Your task to perform on an android device: Go to wifi settings Image 0: 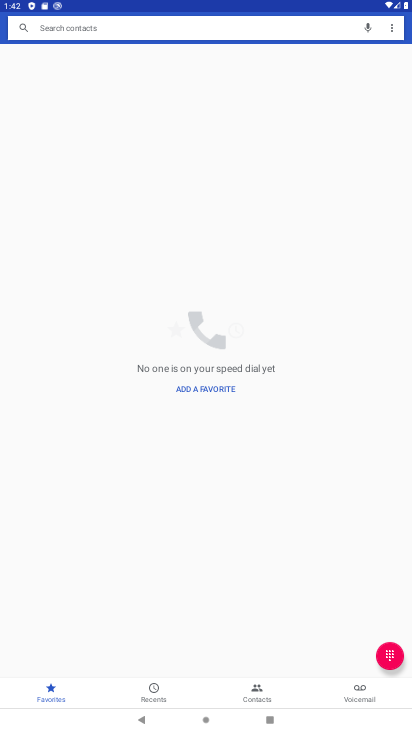
Step 0: press home button
Your task to perform on an android device: Go to wifi settings Image 1: 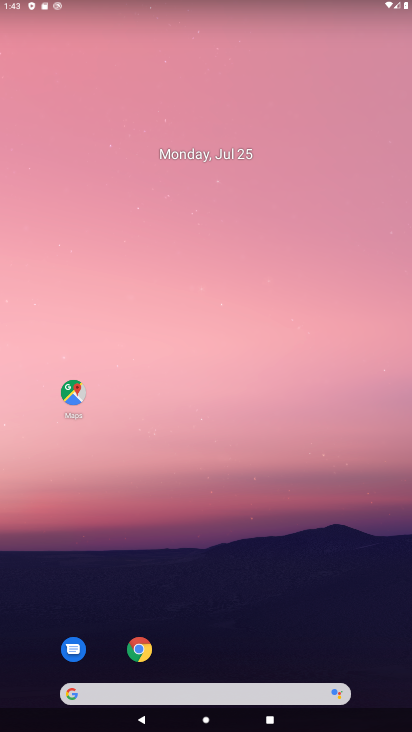
Step 1: drag from (227, 688) to (356, 0)
Your task to perform on an android device: Go to wifi settings Image 2: 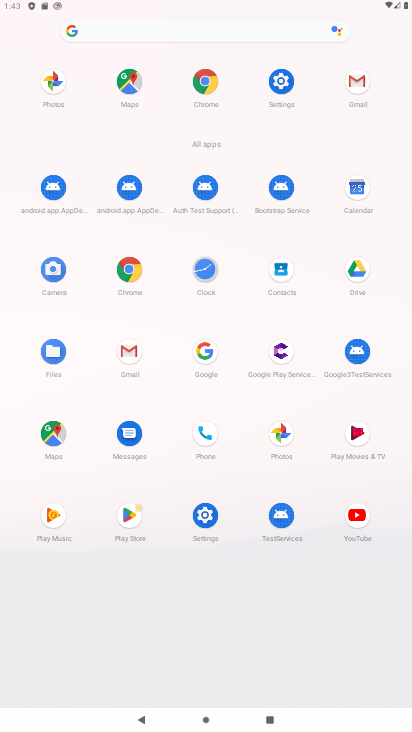
Step 2: click (290, 94)
Your task to perform on an android device: Go to wifi settings Image 3: 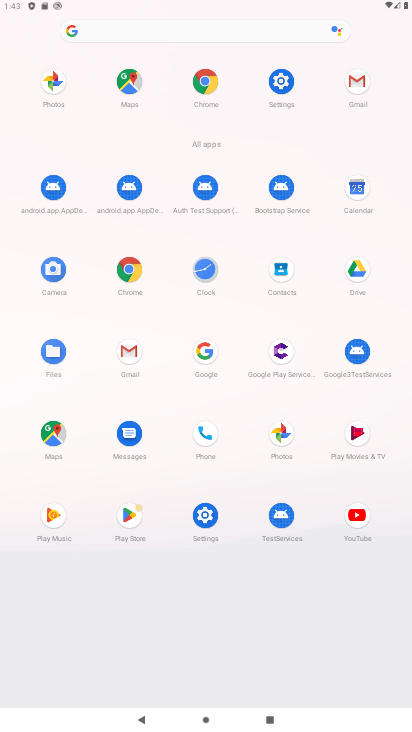
Step 3: click (290, 94)
Your task to perform on an android device: Go to wifi settings Image 4: 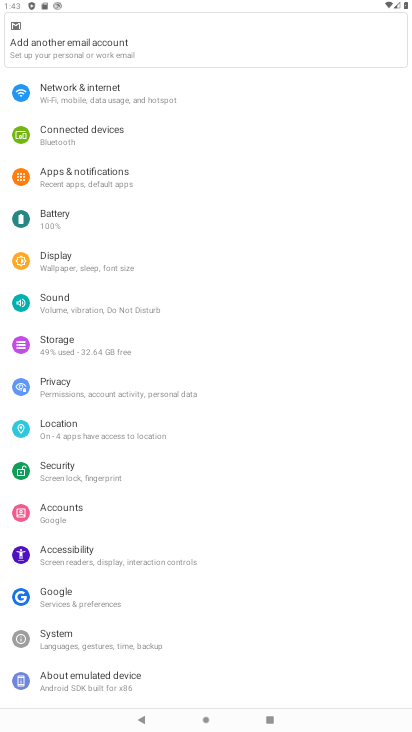
Step 4: click (149, 106)
Your task to perform on an android device: Go to wifi settings Image 5: 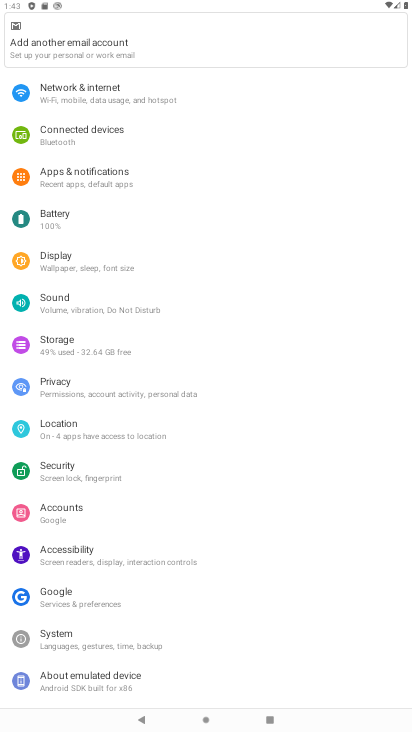
Step 5: click (149, 106)
Your task to perform on an android device: Go to wifi settings Image 6: 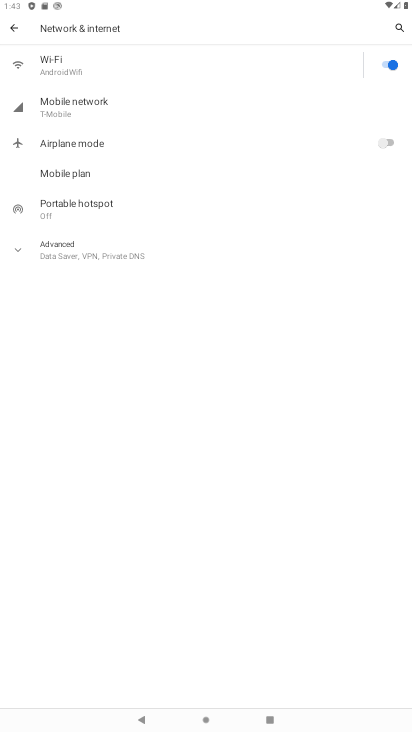
Step 6: click (245, 62)
Your task to perform on an android device: Go to wifi settings Image 7: 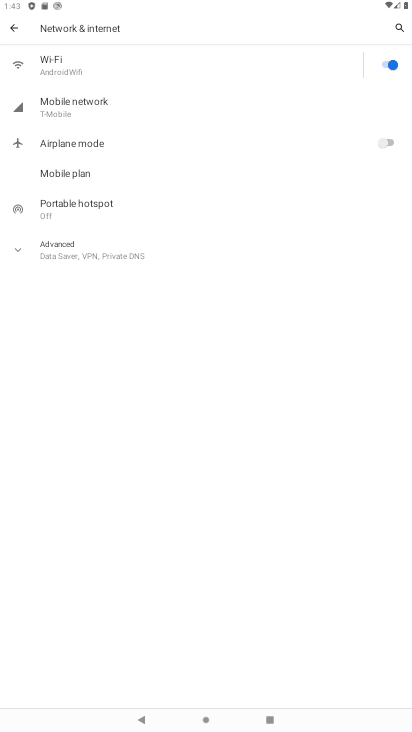
Step 7: click (245, 62)
Your task to perform on an android device: Go to wifi settings Image 8: 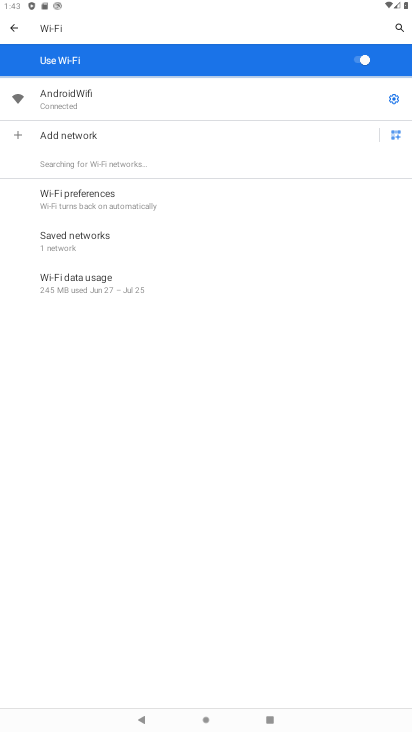
Step 8: click (387, 98)
Your task to perform on an android device: Go to wifi settings Image 9: 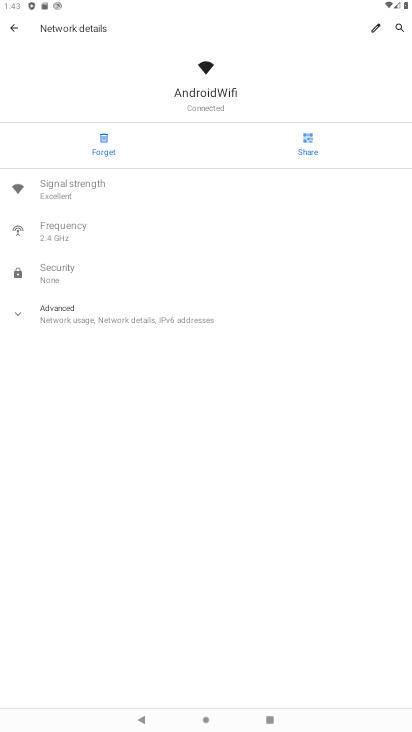
Step 9: task complete